Your task to perform on an android device: open wifi settings Image 0: 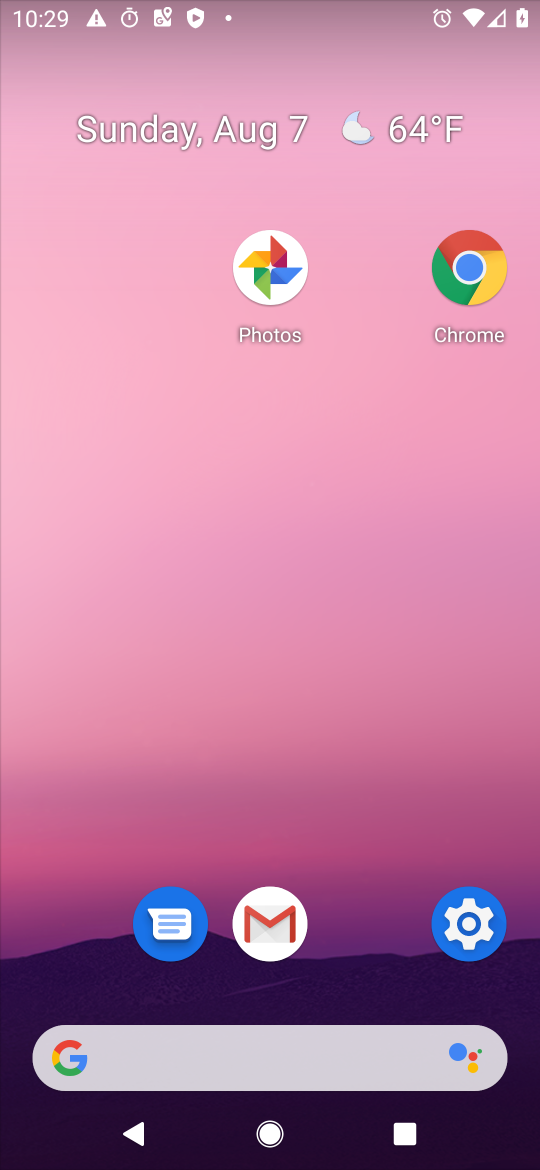
Step 0: press home button
Your task to perform on an android device: open wifi settings Image 1: 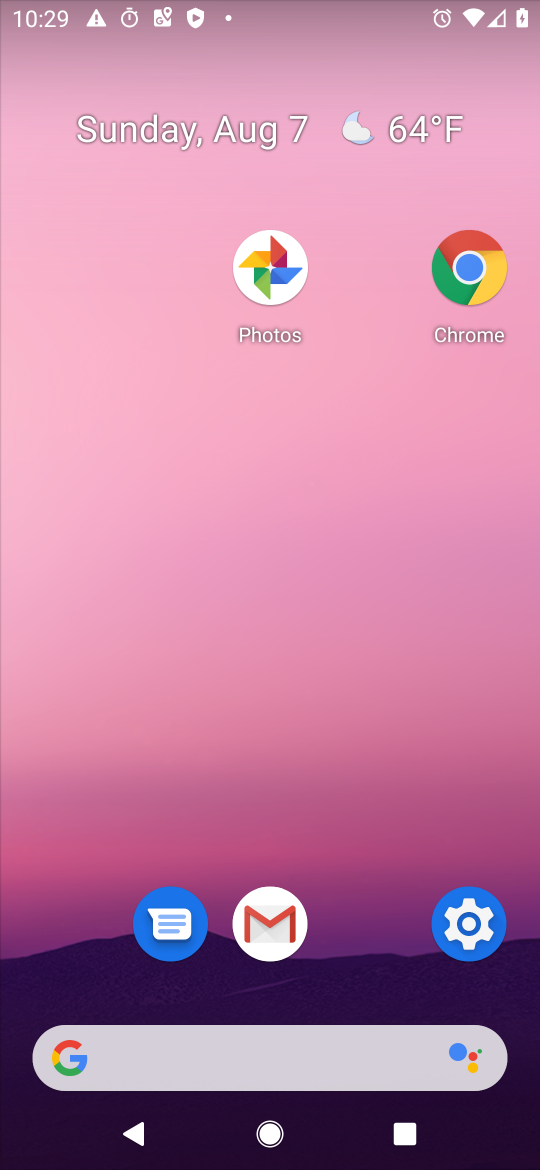
Step 1: drag from (357, 1087) to (372, 416)
Your task to perform on an android device: open wifi settings Image 2: 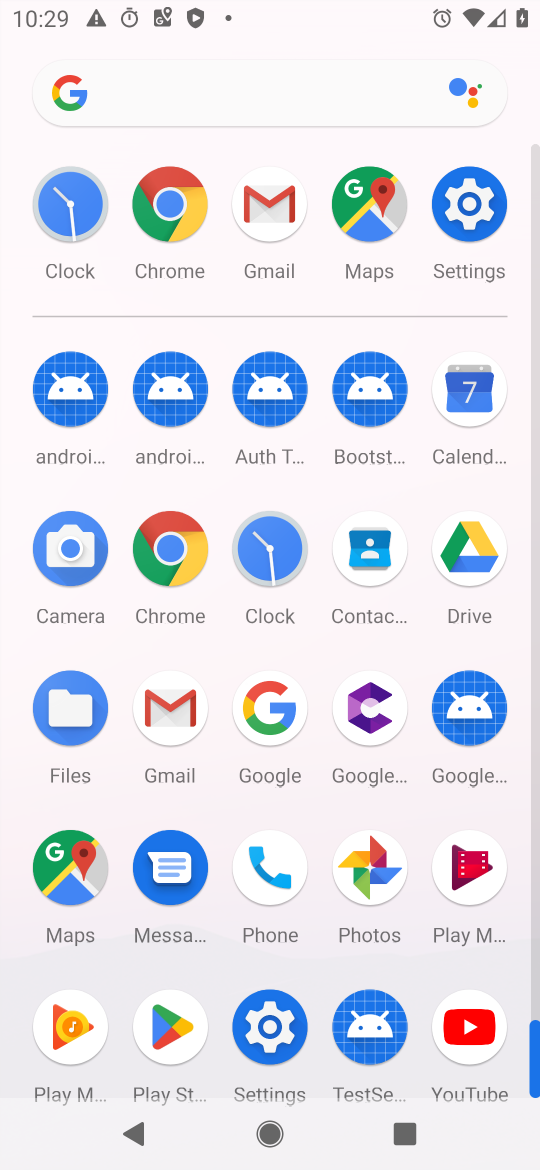
Step 2: click (463, 206)
Your task to perform on an android device: open wifi settings Image 3: 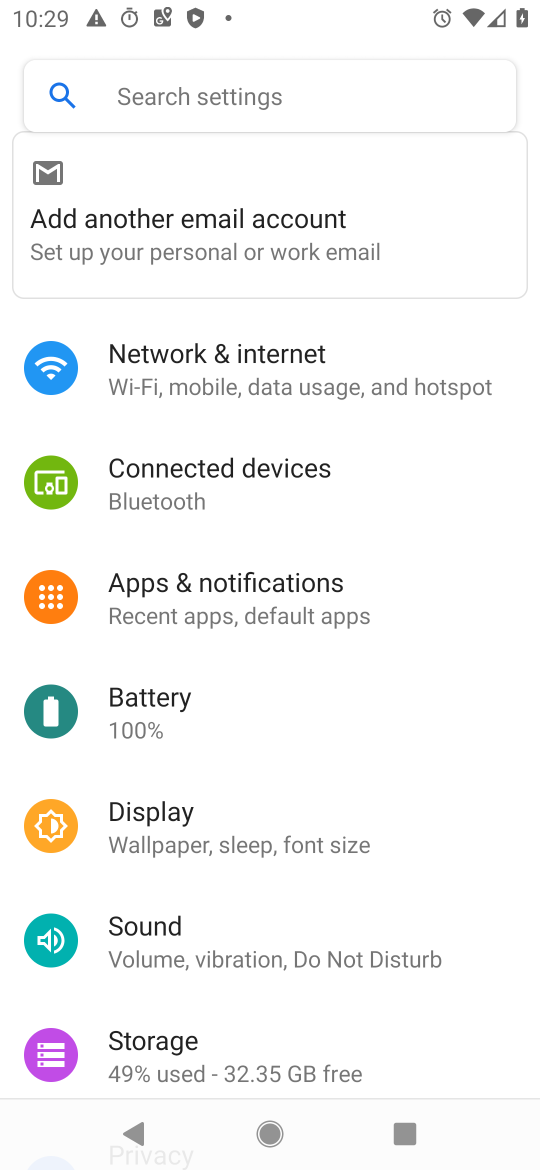
Step 3: click (196, 383)
Your task to perform on an android device: open wifi settings Image 4: 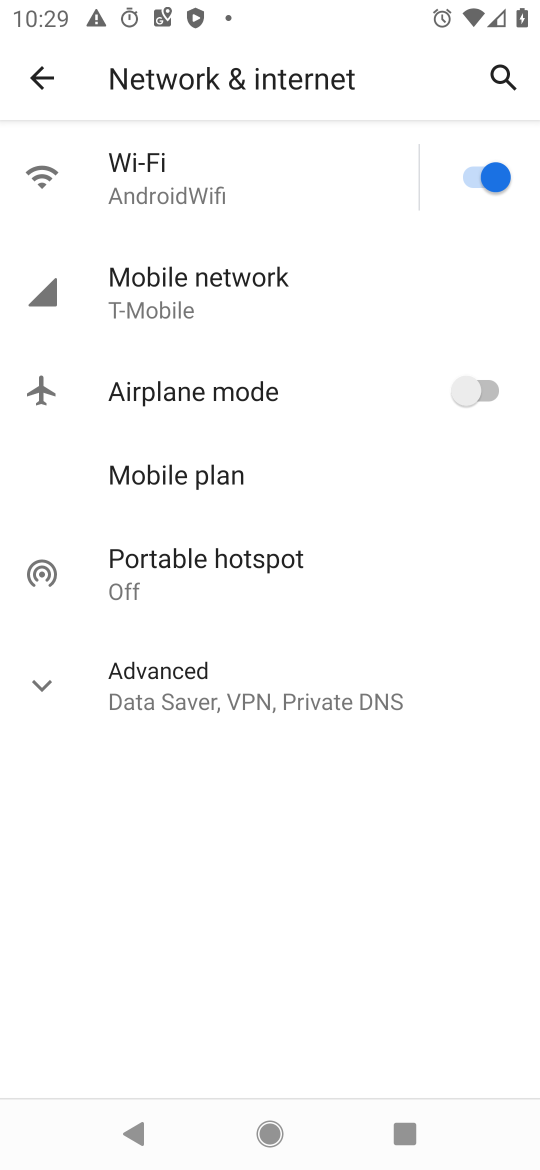
Step 4: click (173, 188)
Your task to perform on an android device: open wifi settings Image 5: 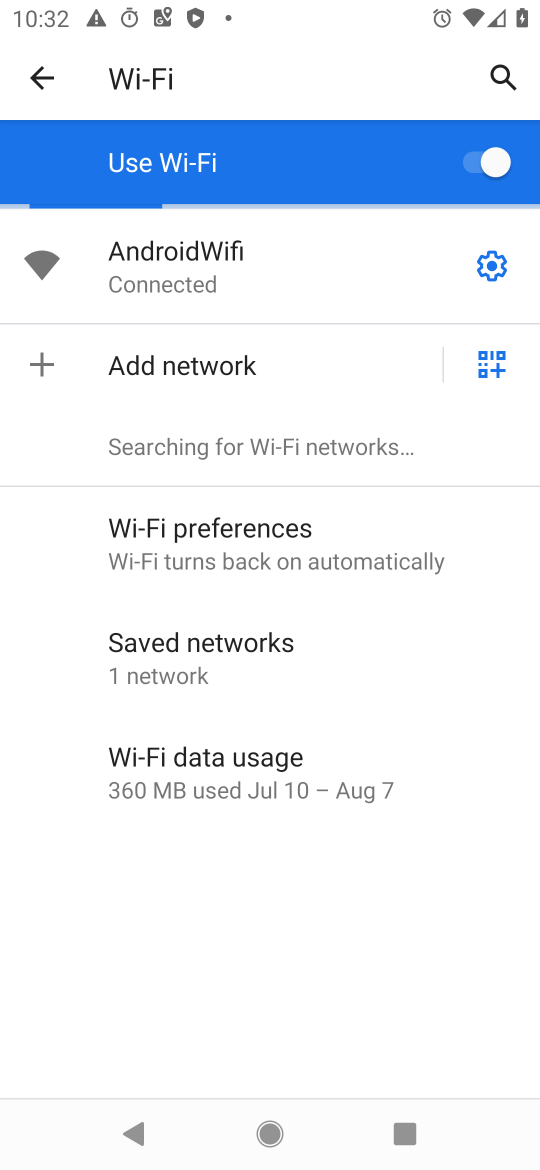
Step 5: task complete